Your task to perform on an android device: Open Maps and search for coffee Image 0: 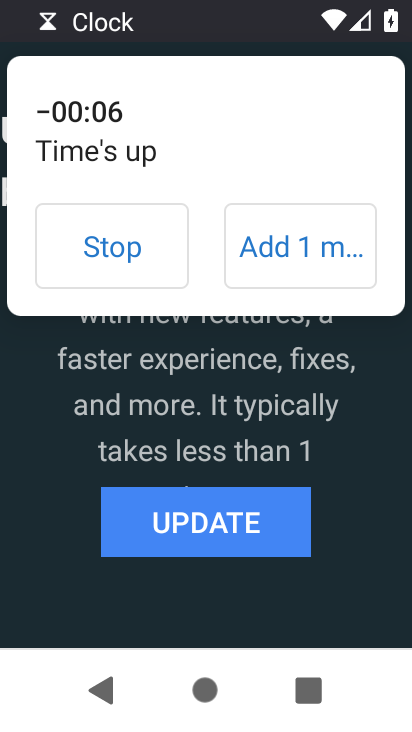
Step 0: click (155, 250)
Your task to perform on an android device: Open Maps and search for coffee Image 1: 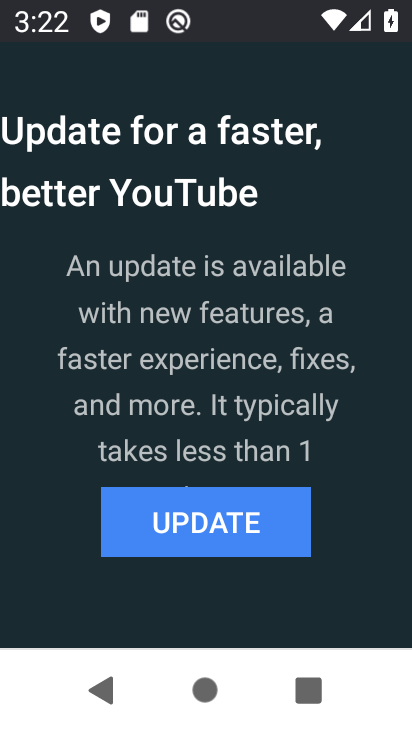
Step 1: press home button
Your task to perform on an android device: Open Maps and search for coffee Image 2: 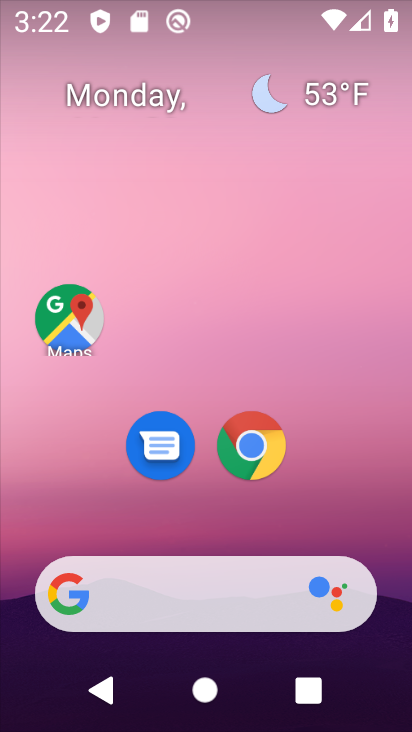
Step 2: drag from (217, 486) to (272, 144)
Your task to perform on an android device: Open Maps and search for coffee Image 3: 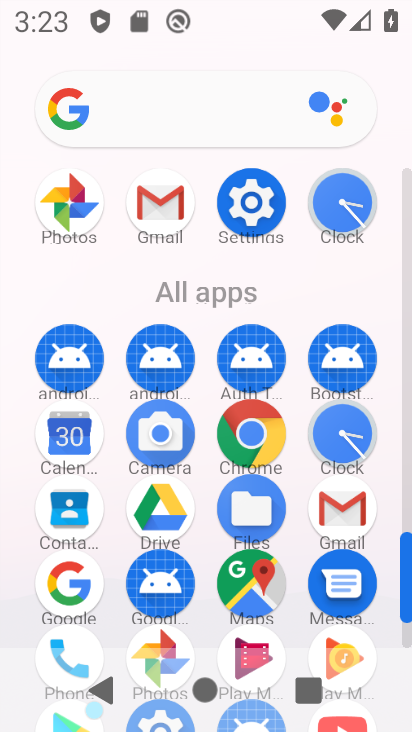
Step 3: click (263, 585)
Your task to perform on an android device: Open Maps and search for coffee Image 4: 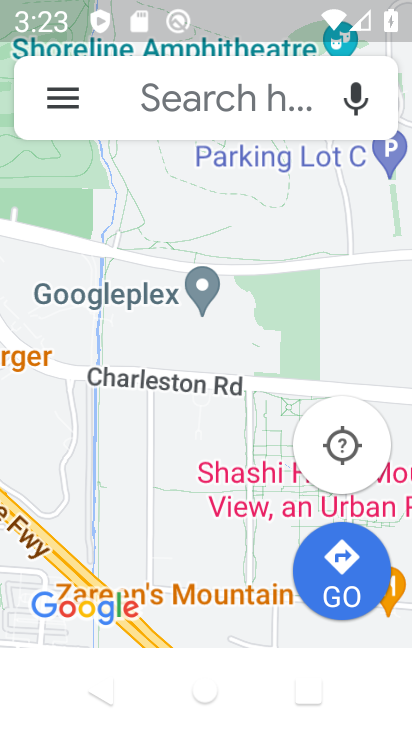
Step 4: click (213, 104)
Your task to perform on an android device: Open Maps and search for coffee Image 5: 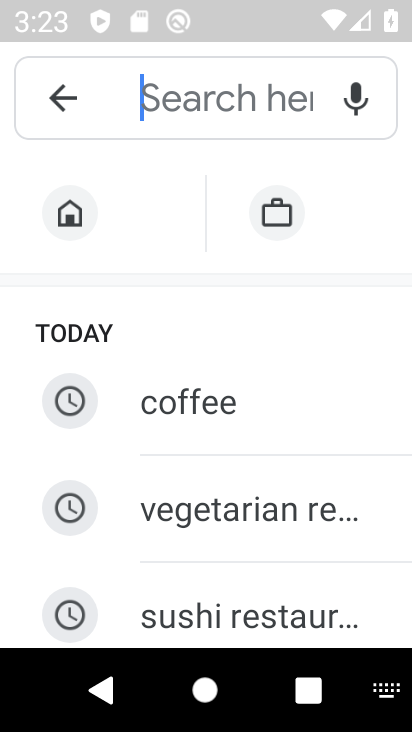
Step 5: type "coffee"
Your task to perform on an android device: Open Maps and search for coffee Image 6: 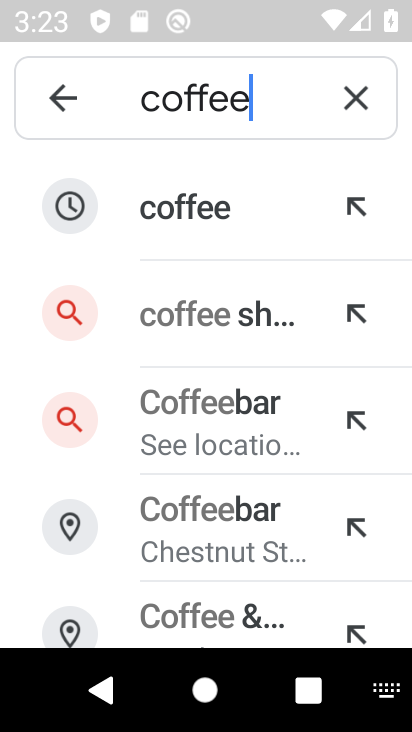
Step 6: click (215, 217)
Your task to perform on an android device: Open Maps and search for coffee Image 7: 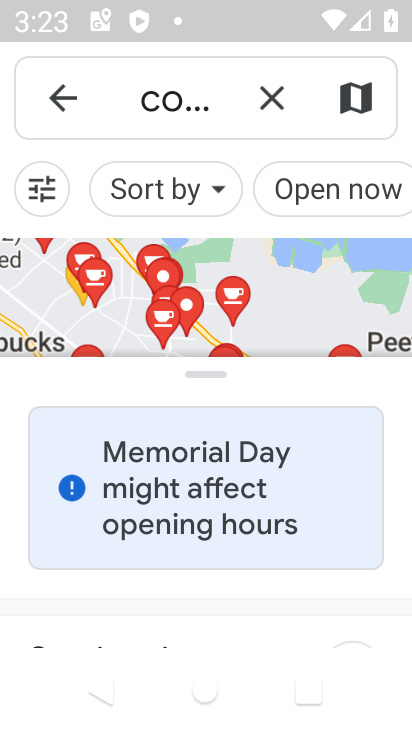
Step 7: task complete